Your task to perform on an android device: What's the weather today? Image 0: 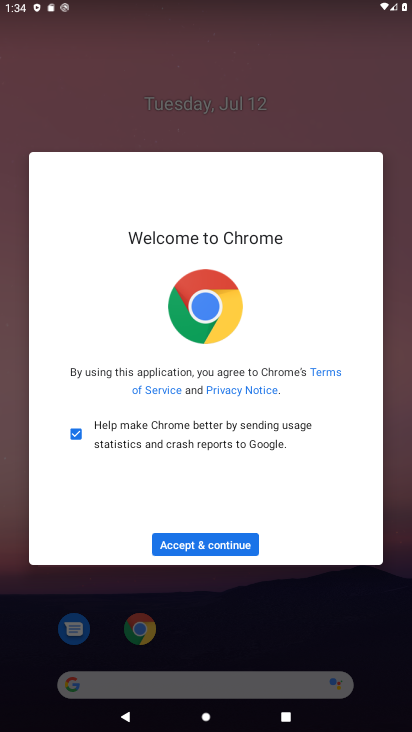
Step 0: press home button
Your task to perform on an android device: What's the weather today? Image 1: 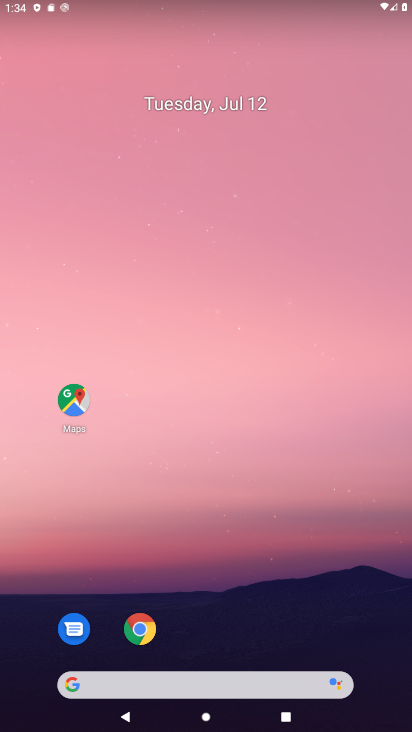
Step 1: drag from (328, 626) to (277, 278)
Your task to perform on an android device: What's the weather today? Image 2: 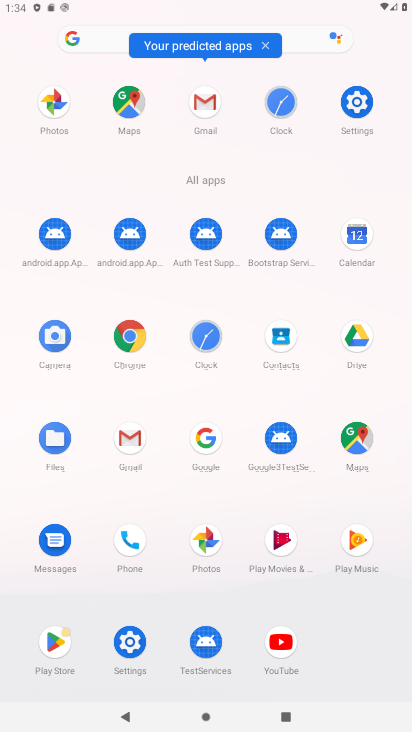
Step 2: click (137, 343)
Your task to perform on an android device: What's the weather today? Image 3: 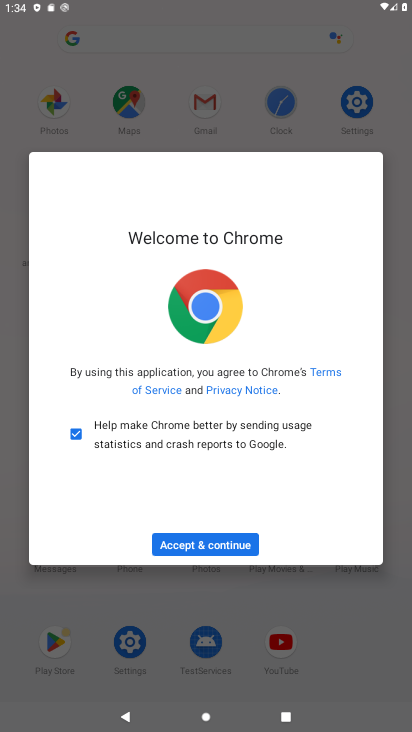
Step 3: click (249, 540)
Your task to perform on an android device: What's the weather today? Image 4: 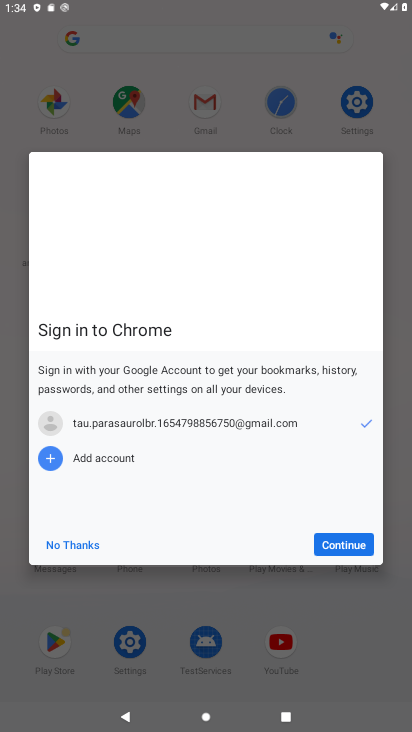
Step 4: click (340, 545)
Your task to perform on an android device: What's the weather today? Image 5: 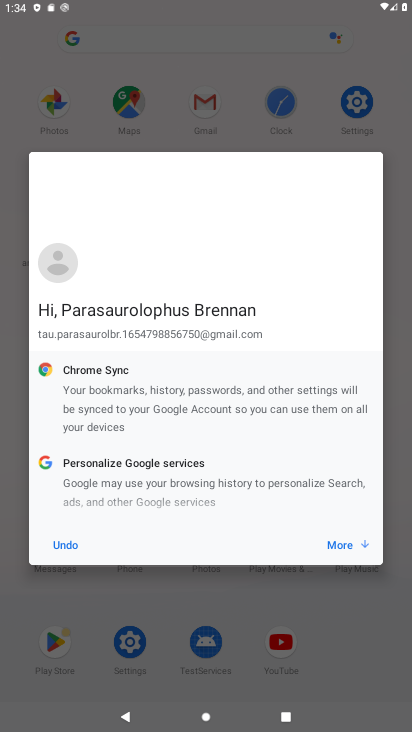
Step 5: click (342, 547)
Your task to perform on an android device: What's the weather today? Image 6: 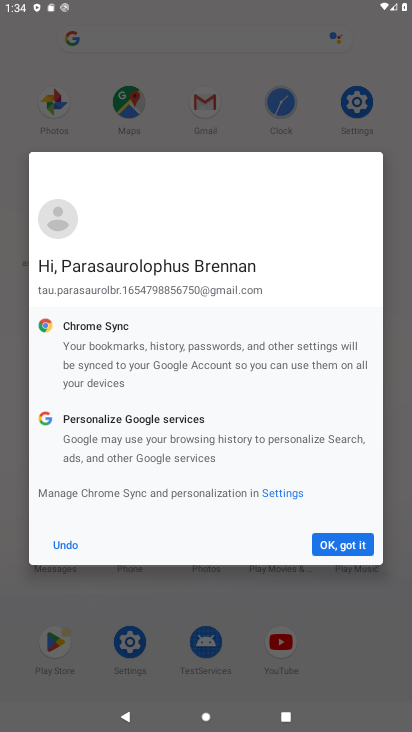
Step 6: click (359, 543)
Your task to perform on an android device: What's the weather today? Image 7: 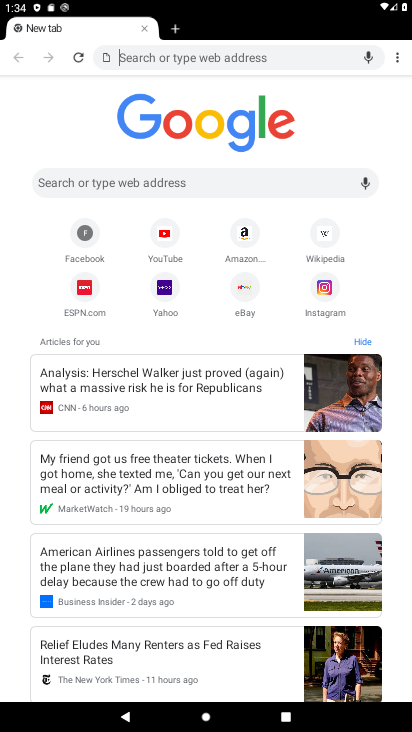
Step 7: click (244, 183)
Your task to perform on an android device: What's the weather today? Image 8: 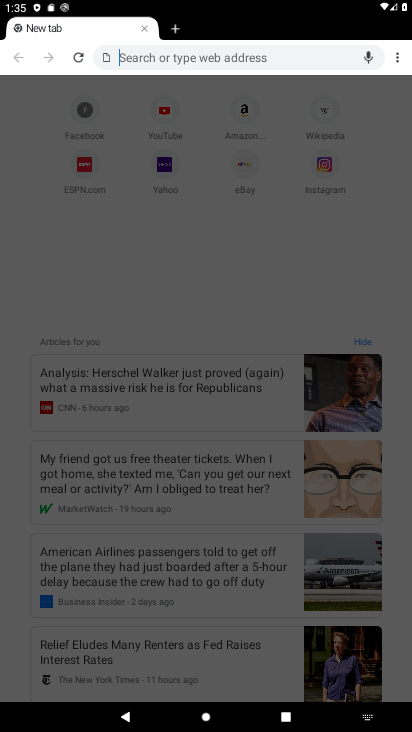
Step 8: type "What's the weather today?"
Your task to perform on an android device: What's the weather today? Image 9: 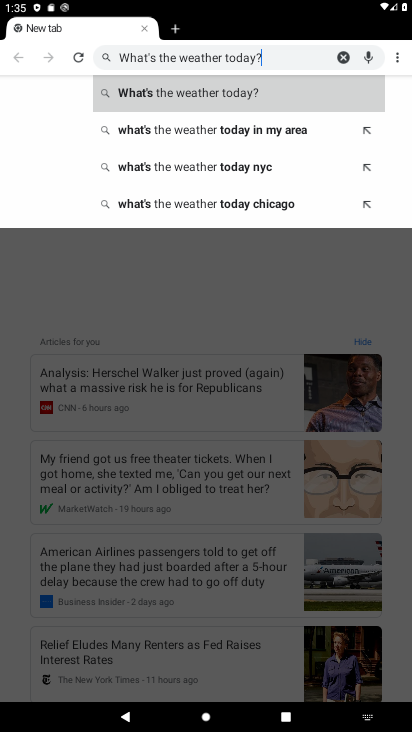
Step 9: click (259, 93)
Your task to perform on an android device: What's the weather today? Image 10: 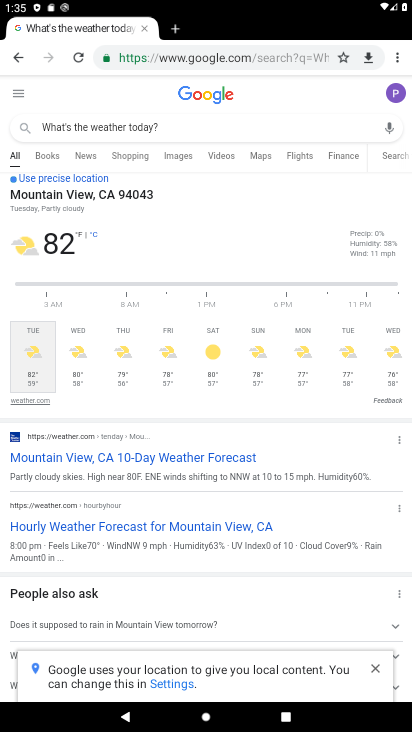
Step 10: task complete